Your task to perform on an android device: Do I have any events tomorrow? Image 0: 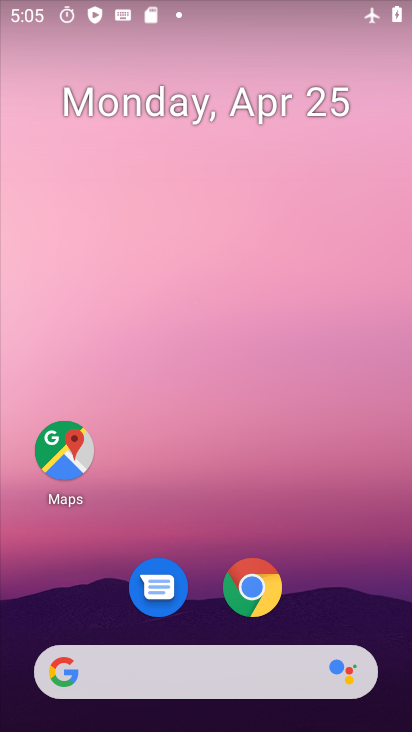
Step 0: drag from (338, 509) to (240, 23)
Your task to perform on an android device: Do I have any events tomorrow? Image 1: 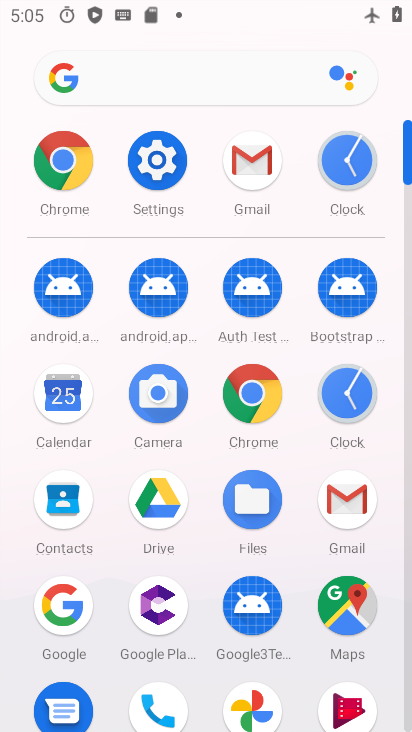
Step 1: click (68, 391)
Your task to perform on an android device: Do I have any events tomorrow? Image 2: 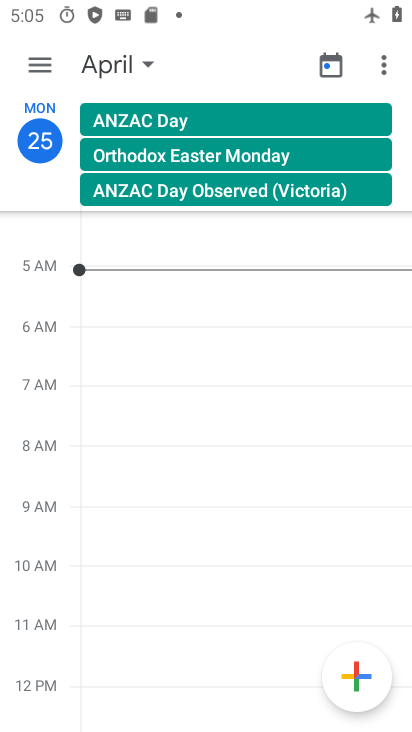
Step 2: click (121, 64)
Your task to perform on an android device: Do I have any events tomorrow? Image 3: 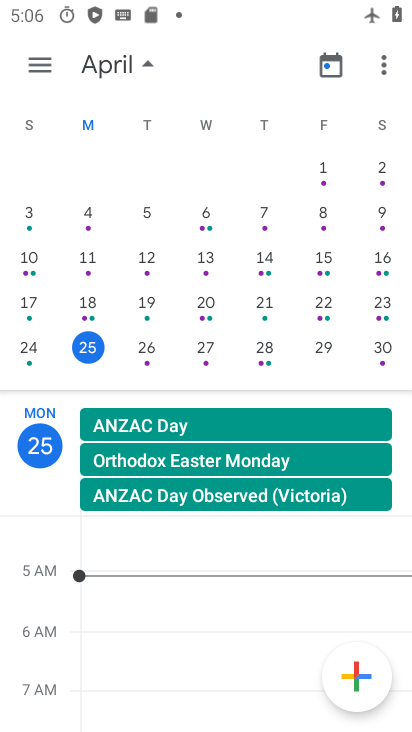
Step 3: click (150, 338)
Your task to perform on an android device: Do I have any events tomorrow? Image 4: 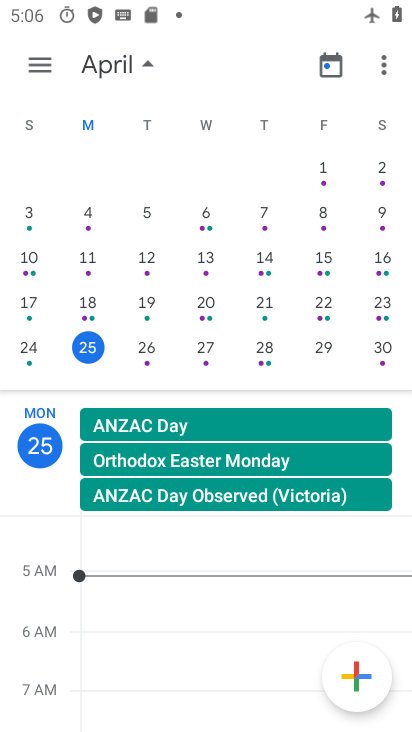
Step 4: click (131, 354)
Your task to perform on an android device: Do I have any events tomorrow? Image 5: 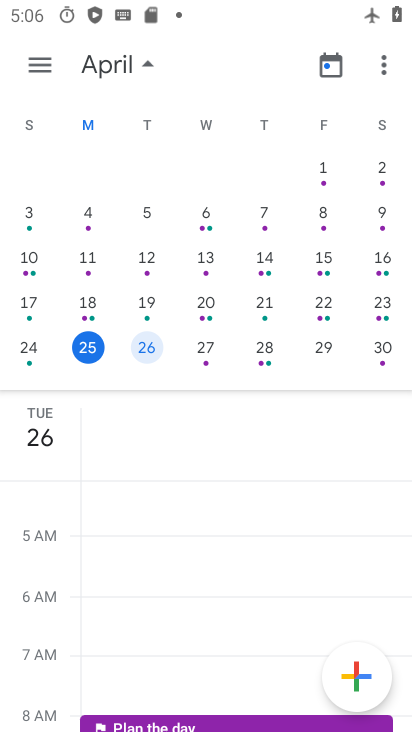
Step 5: task complete